Your task to perform on an android device: turn pop-ups off in chrome Image 0: 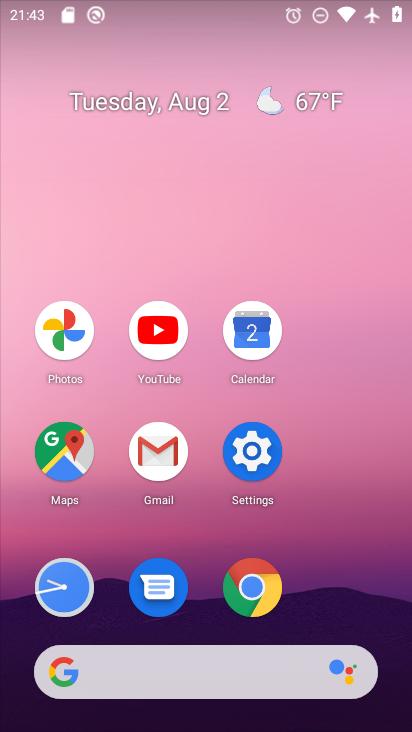
Step 0: click (247, 593)
Your task to perform on an android device: turn pop-ups off in chrome Image 1: 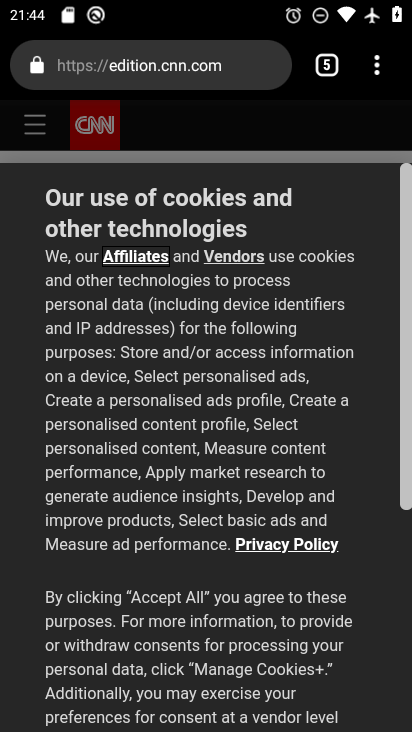
Step 1: click (381, 68)
Your task to perform on an android device: turn pop-ups off in chrome Image 2: 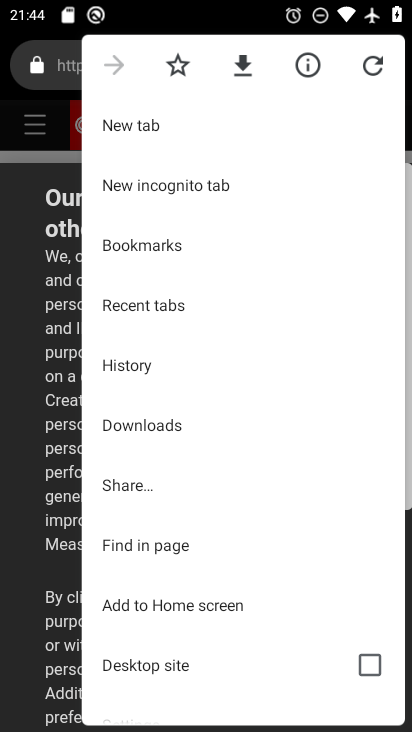
Step 2: drag from (249, 658) to (237, 284)
Your task to perform on an android device: turn pop-ups off in chrome Image 3: 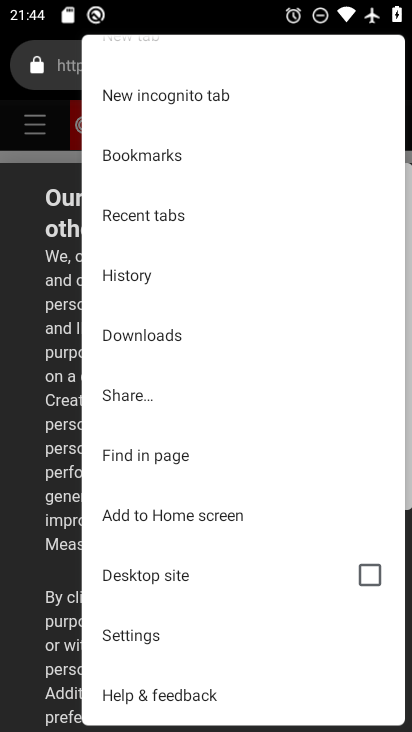
Step 3: click (145, 630)
Your task to perform on an android device: turn pop-ups off in chrome Image 4: 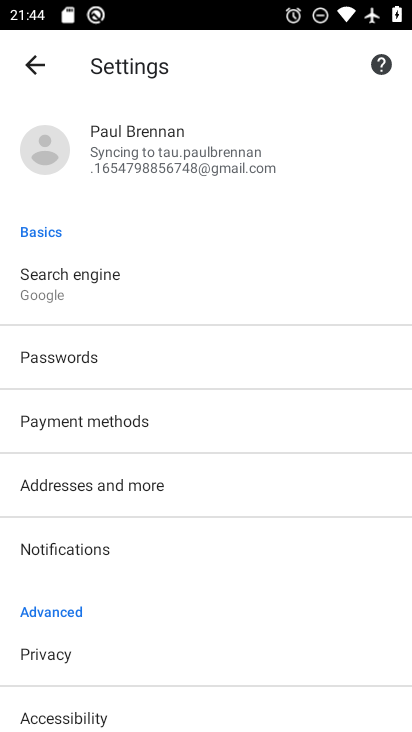
Step 4: drag from (185, 582) to (162, 251)
Your task to perform on an android device: turn pop-ups off in chrome Image 5: 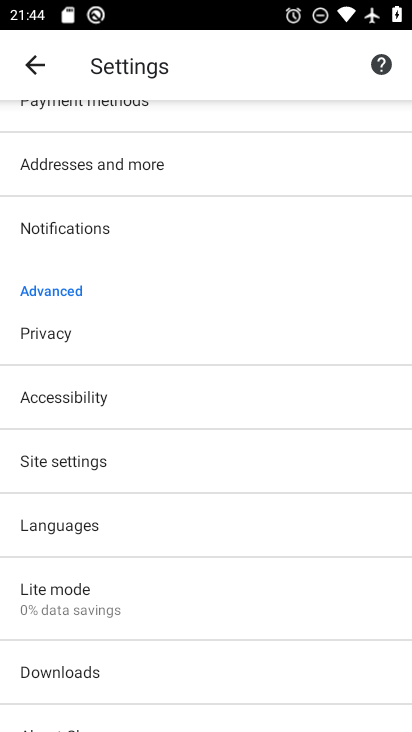
Step 5: click (70, 467)
Your task to perform on an android device: turn pop-ups off in chrome Image 6: 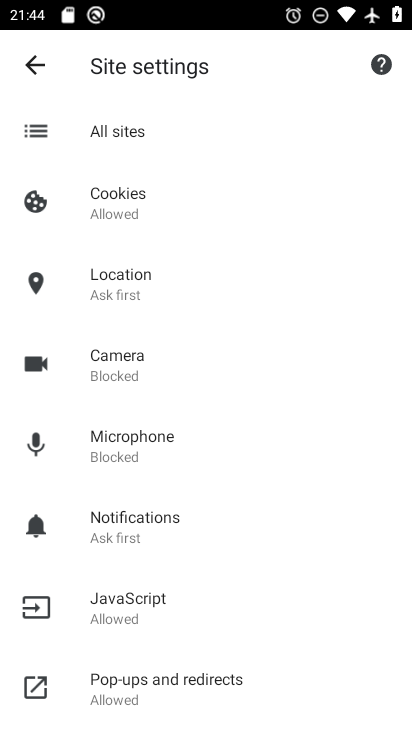
Step 6: click (149, 684)
Your task to perform on an android device: turn pop-ups off in chrome Image 7: 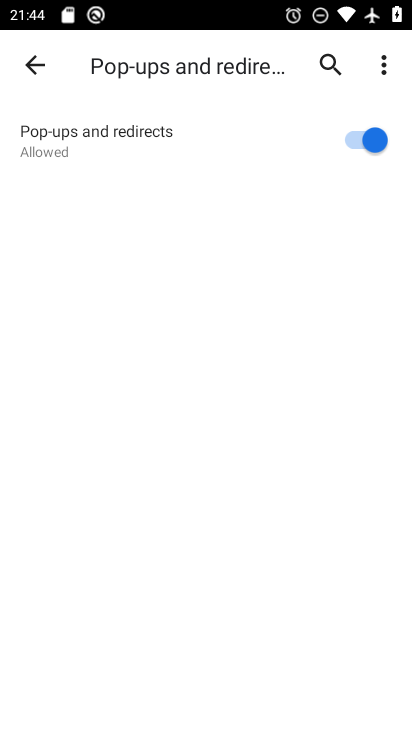
Step 7: click (368, 133)
Your task to perform on an android device: turn pop-ups off in chrome Image 8: 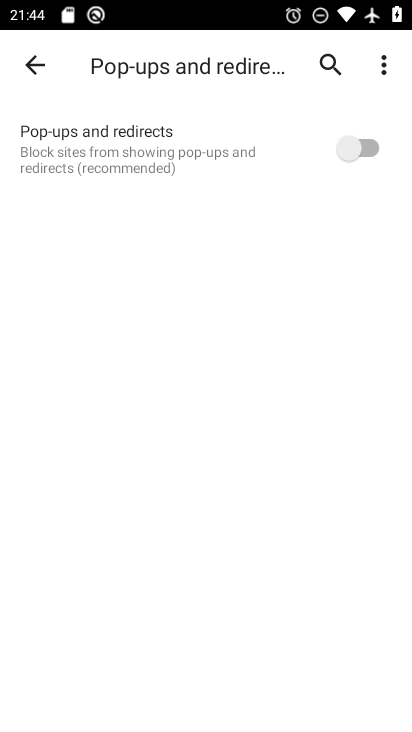
Step 8: task complete